Your task to perform on an android device: Open Chrome and go to the settings page Image 0: 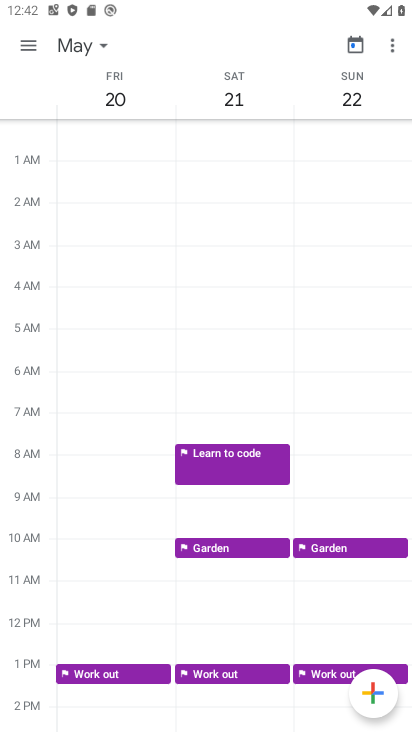
Step 0: press home button
Your task to perform on an android device: Open Chrome and go to the settings page Image 1: 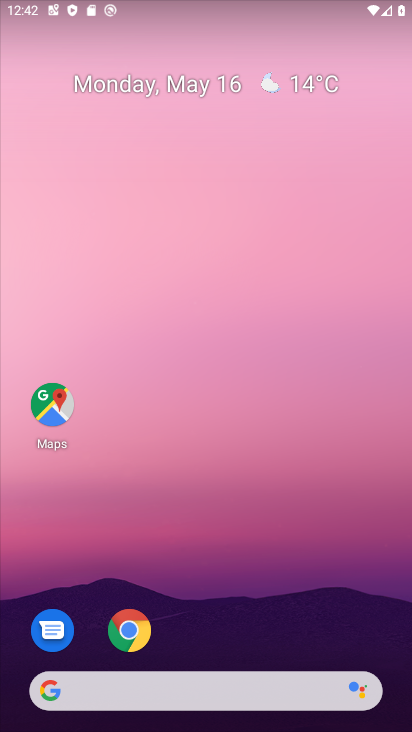
Step 1: click (137, 634)
Your task to perform on an android device: Open Chrome and go to the settings page Image 2: 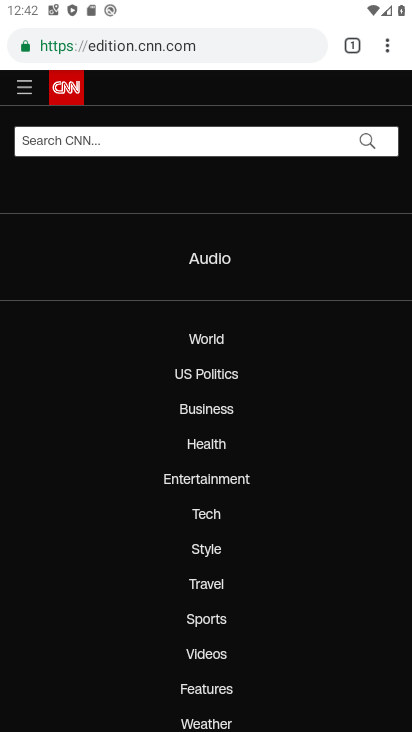
Step 2: click (392, 52)
Your task to perform on an android device: Open Chrome and go to the settings page Image 3: 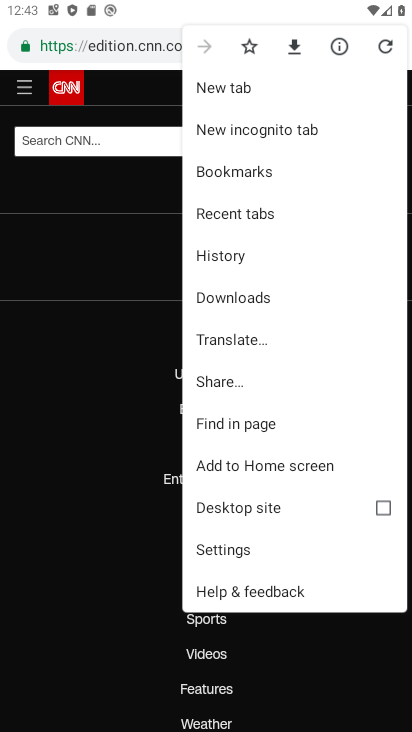
Step 3: click (260, 542)
Your task to perform on an android device: Open Chrome and go to the settings page Image 4: 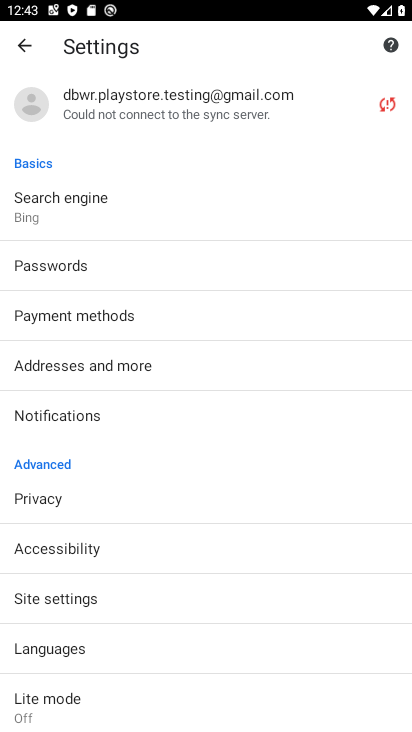
Step 4: task complete